Your task to perform on an android device: Open Android settings Image 0: 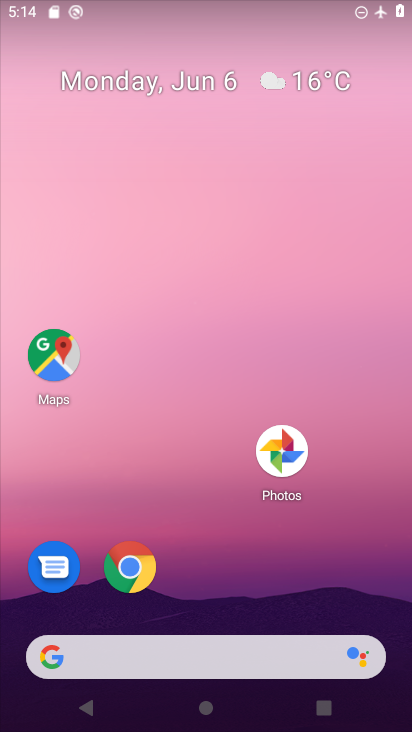
Step 0: drag from (270, 714) to (218, 120)
Your task to perform on an android device: Open Android settings Image 1: 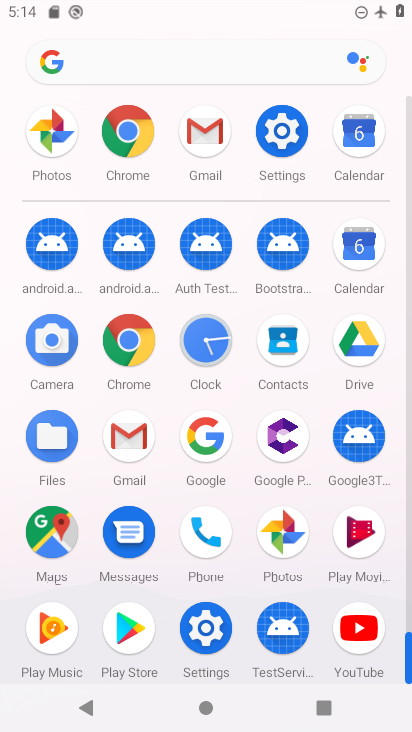
Step 1: click (285, 133)
Your task to perform on an android device: Open Android settings Image 2: 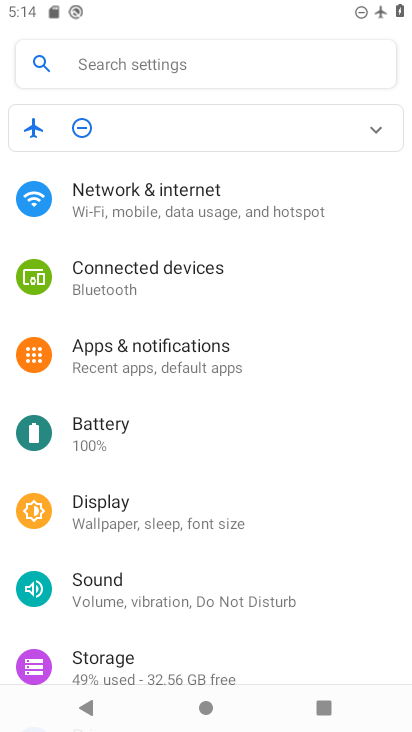
Step 2: drag from (242, 559) to (219, 166)
Your task to perform on an android device: Open Android settings Image 3: 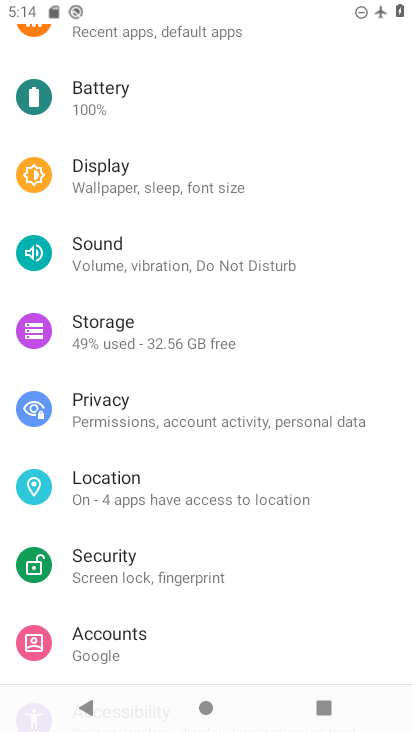
Step 3: drag from (173, 563) to (173, 221)
Your task to perform on an android device: Open Android settings Image 4: 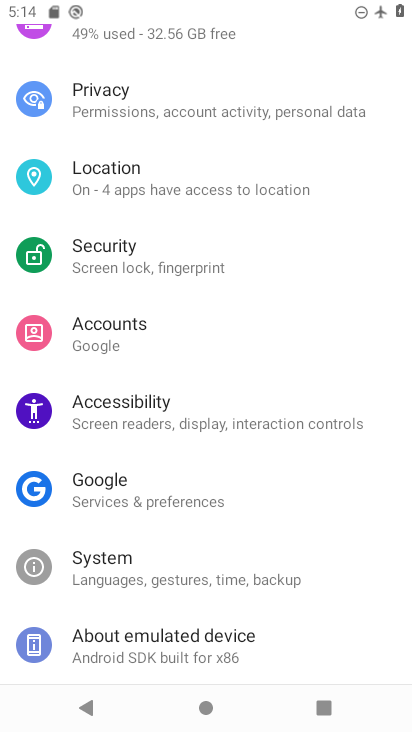
Step 4: drag from (178, 502) to (223, 218)
Your task to perform on an android device: Open Android settings Image 5: 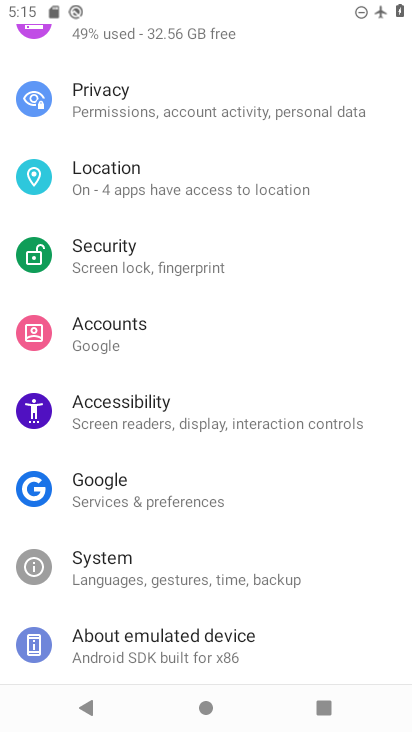
Step 5: click (196, 143)
Your task to perform on an android device: Open Android settings Image 6: 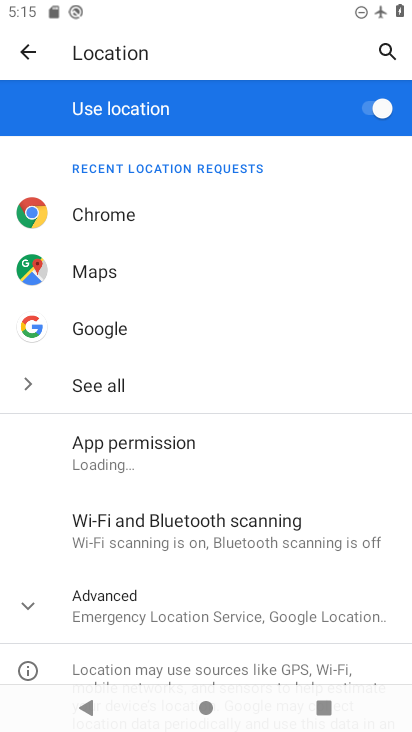
Step 6: click (37, 52)
Your task to perform on an android device: Open Android settings Image 7: 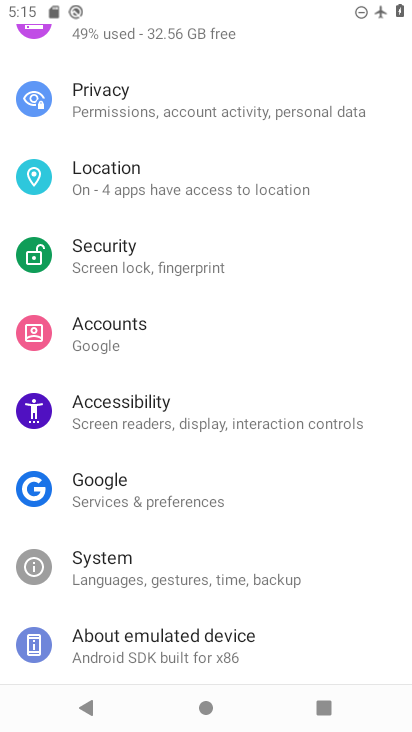
Step 7: click (108, 645)
Your task to perform on an android device: Open Android settings Image 8: 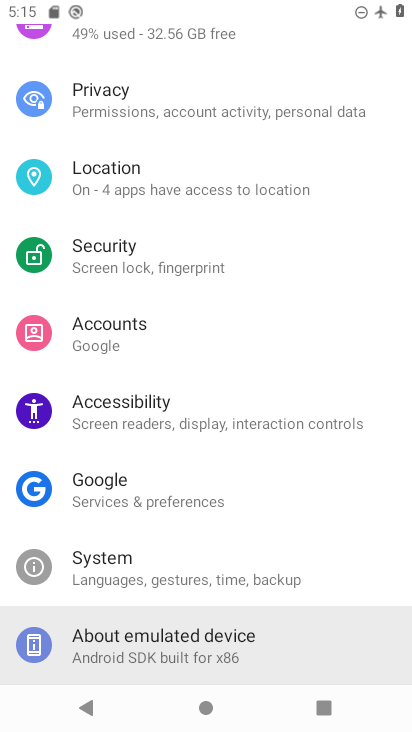
Step 8: click (108, 645)
Your task to perform on an android device: Open Android settings Image 9: 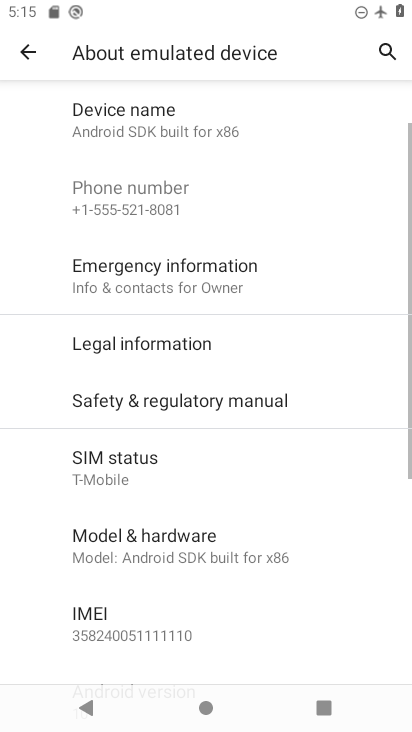
Step 9: task complete